Your task to perform on an android device: Check the news Image 0: 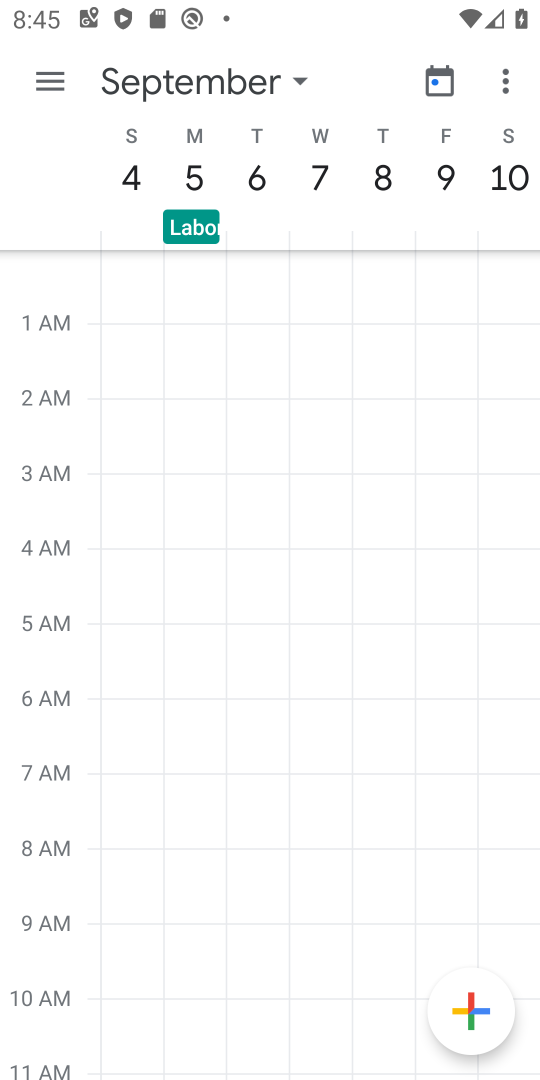
Step 0: press home button
Your task to perform on an android device: Check the news Image 1: 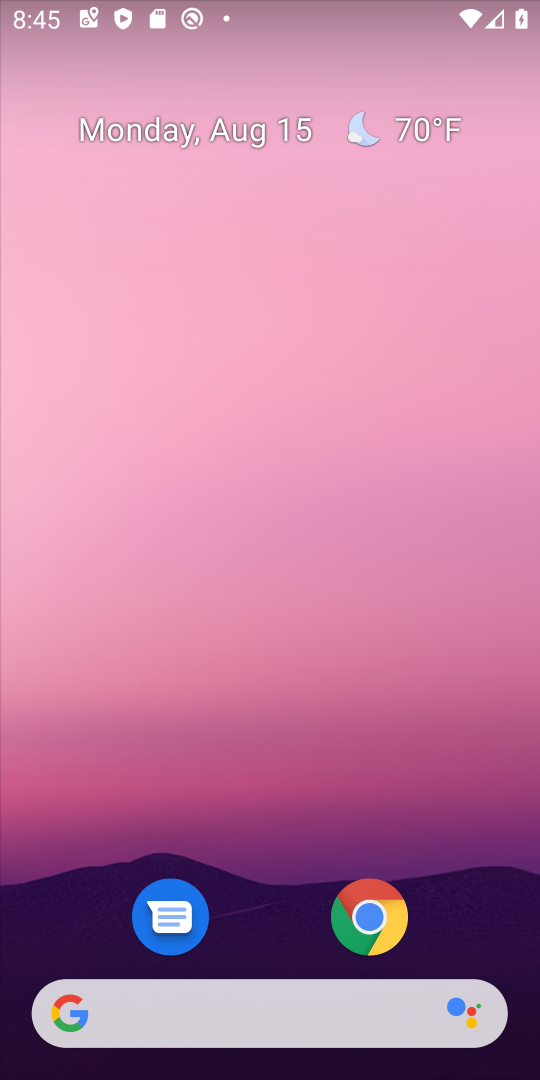
Step 1: click (255, 1016)
Your task to perform on an android device: Check the news Image 2: 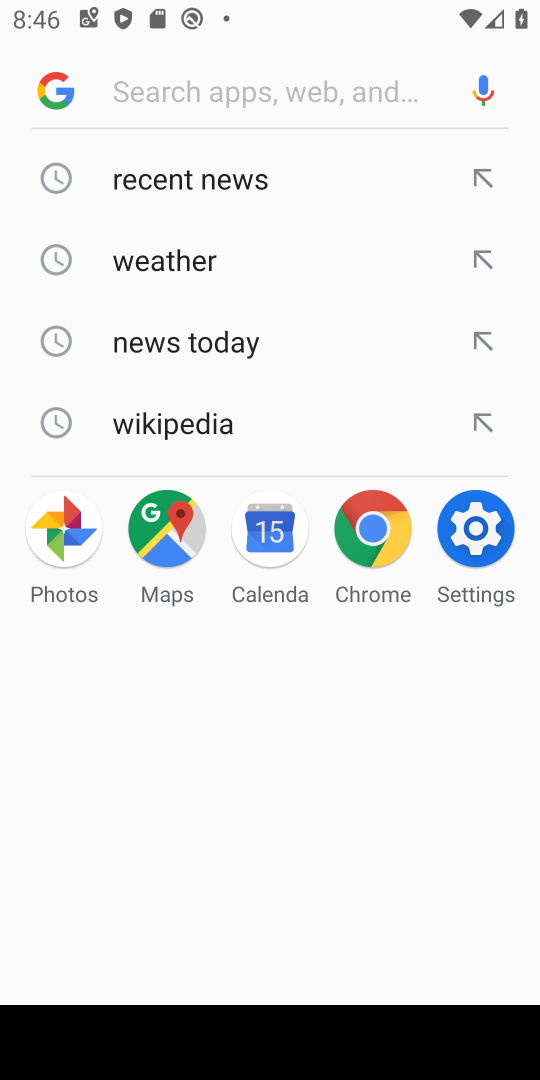
Step 2: click (222, 184)
Your task to perform on an android device: Check the news Image 3: 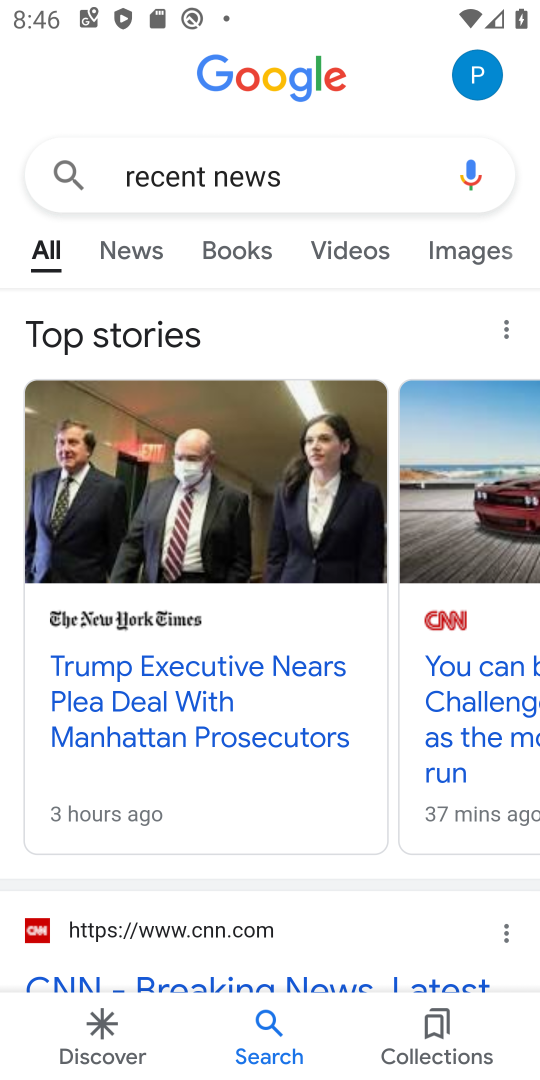
Step 3: task complete